Your task to perform on an android device: search for starred emails in the gmail app Image 0: 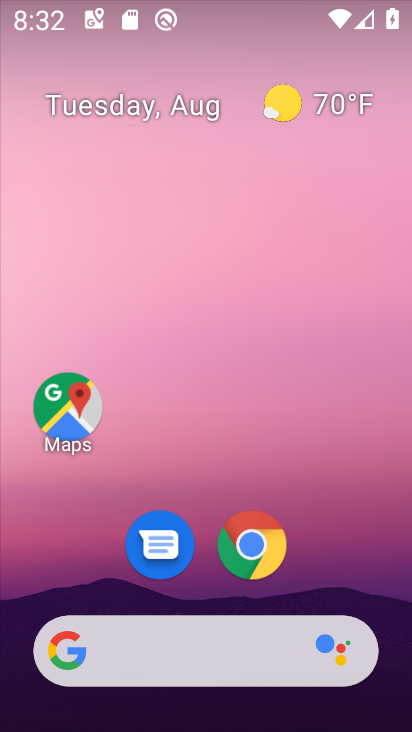
Step 0: drag from (215, 652) to (239, 171)
Your task to perform on an android device: search for starred emails in the gmail app Image 1: 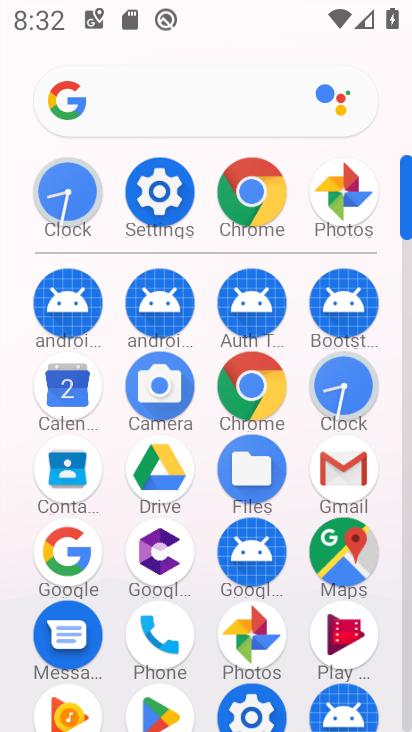
Step 1: click (368, 488)
Your task to perform on an android device: search for starred emails in the gmail app Image 2: 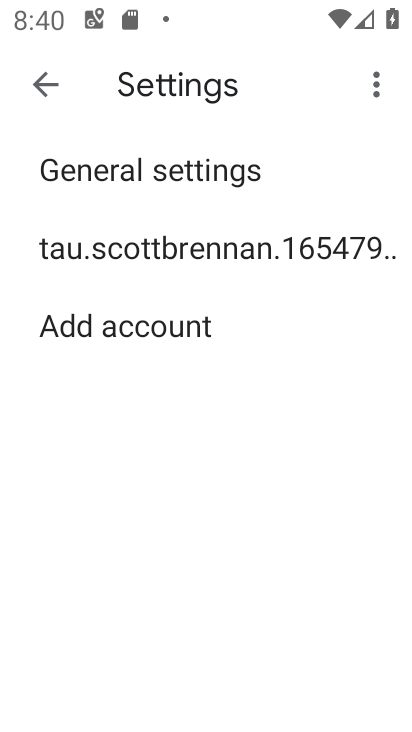
Step 2: click (56, 88)
Your task to perform on an android device: search for starred emails in the gmail app Image 3: 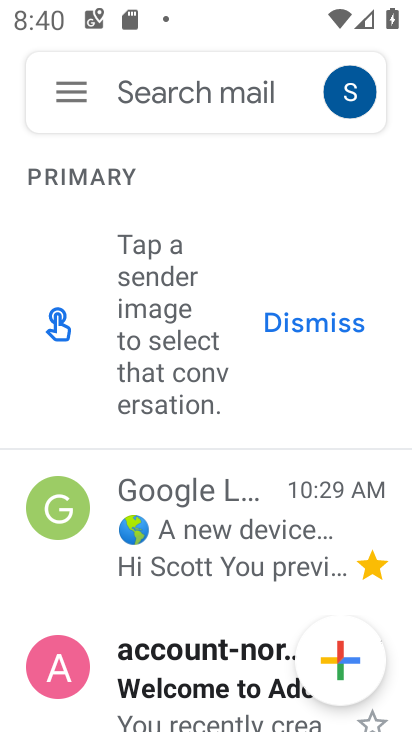
Step 3: click (75, 90)
Your task to perform on an android device: search for starred emails in the gmail app Image 4: 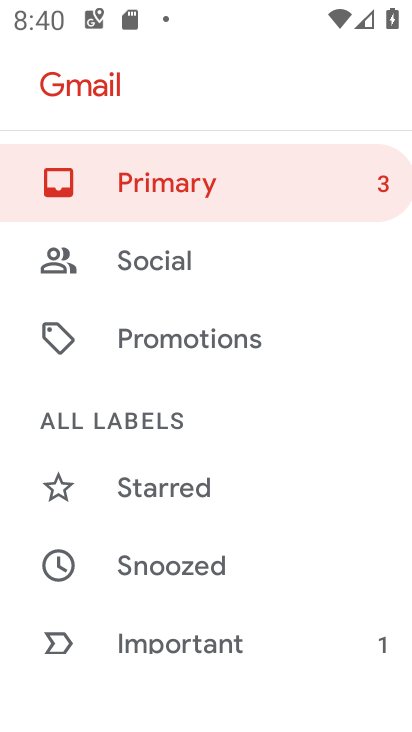
Step 4: click (203, 482)
Your task to perform on an android device: search for starred emails in the gmail app Image 5: 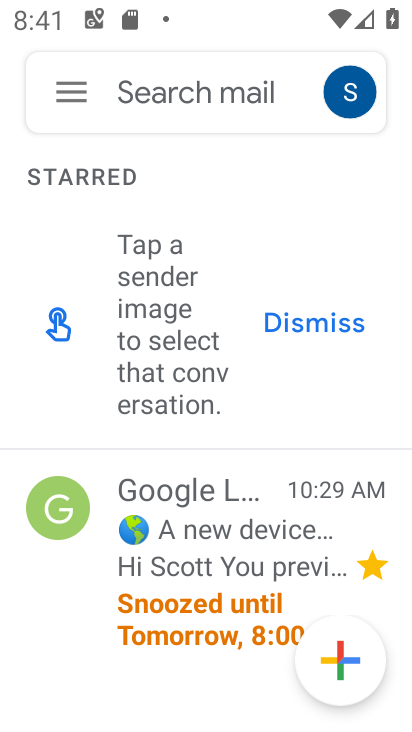
Step 5: task complete